Your task to perform on an android device: open chrome and create a bookmark for the current page Image 0: 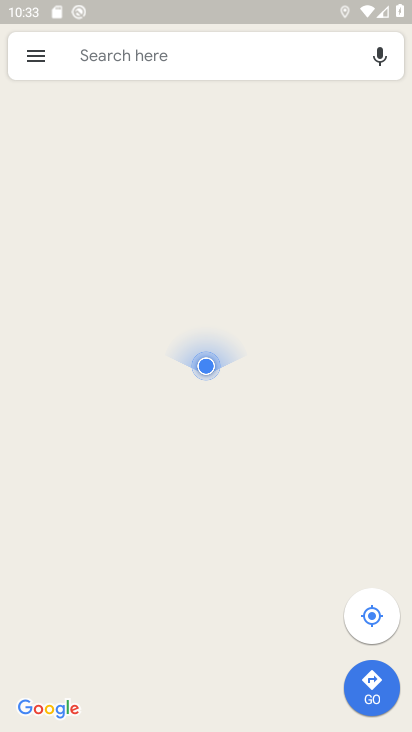
Step 0: press home button
Your task to perform on an android device: open chrome and create a bookmark for the current page Image 1: 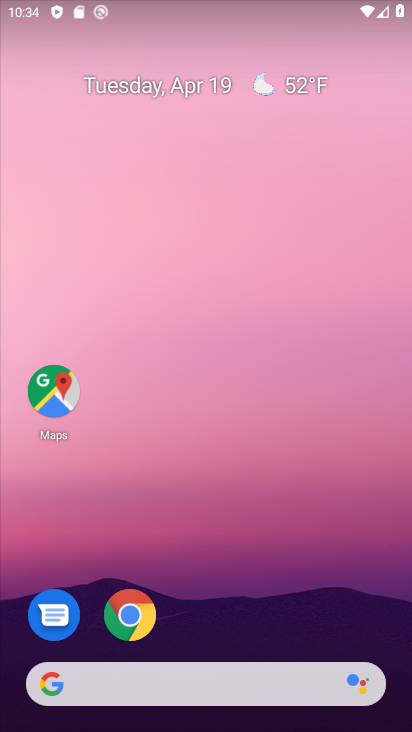
Step 1: click (133, 615)
Your task to perform on an android device: open chrome and create a bookmark for the current page Image 2: 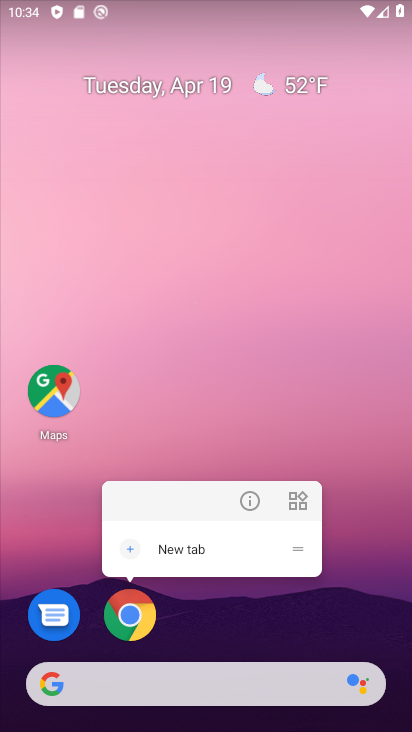
Step 2: click (182, 550)
Your task to perform on an android device: open chrome and create a bookmark for the current page Image 3: 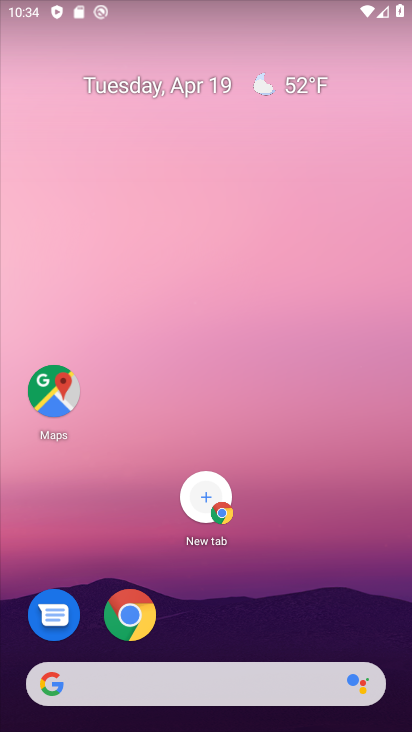
Step 3: click (202, 496)
Your task to perform on an android device: open chrome and create a bookmark for the current page Image 4: 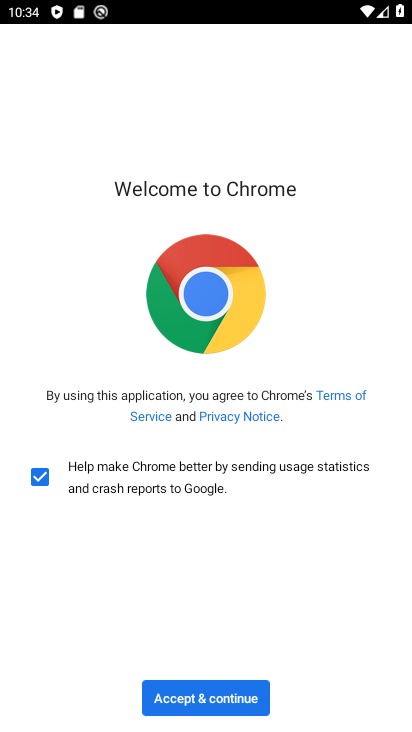
Step 4: click (216, 708)
Your task to perform on an android device: open chrome and create a bookmark for the current page Image 5: 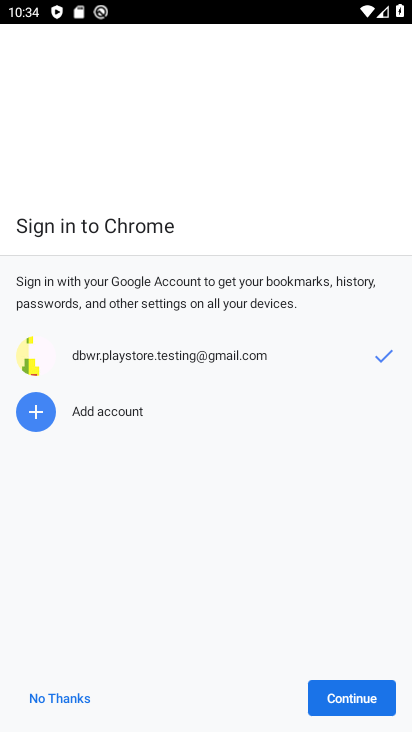
Step 5: click (339, 691)
Your task to perform on an android device: open chrome and create a bookmark for the current page Image 6: 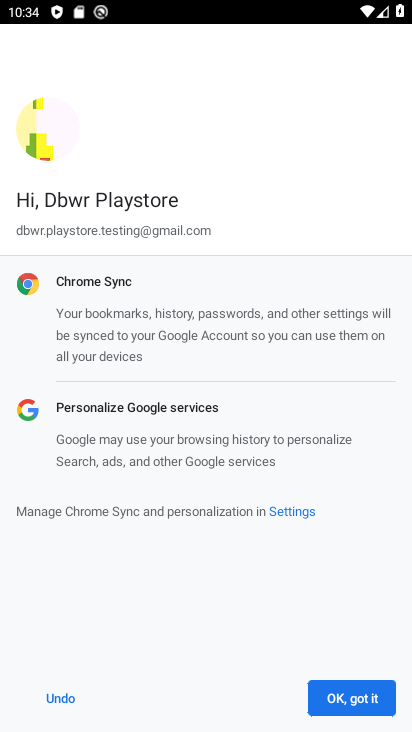
Step 6: click (339, 691)
Your task to perform on an android device: open chrome and create a bookmark for the current page Image 7: 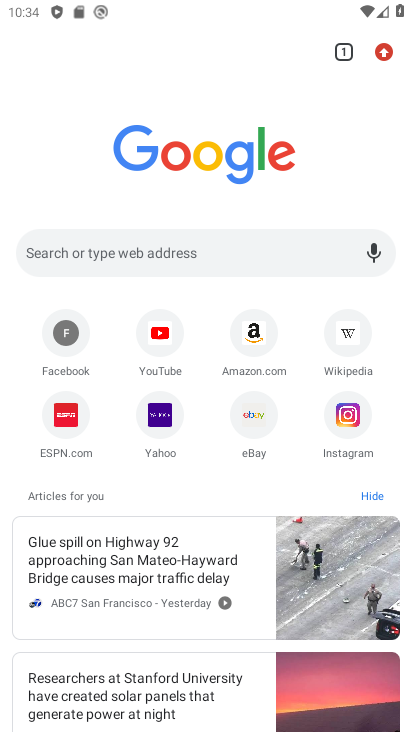
Step 7: click (387, 60)
Your task to perform on an android device: open chrome and create a bookmark for the current page Image 8: 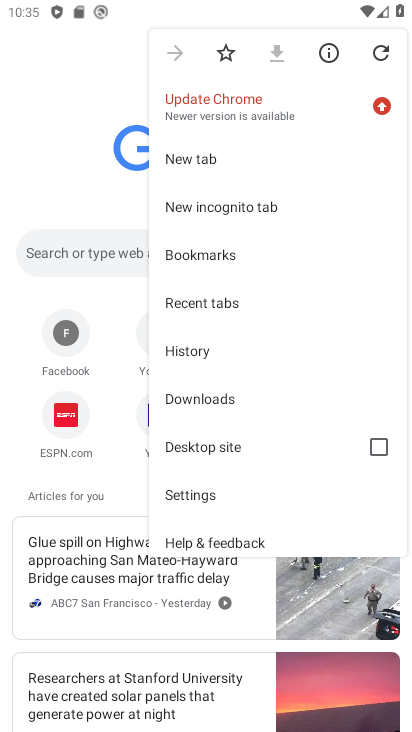
Step 8: click (228, 56)
Your task to perform on an android device: open chrome and create a bookmark for the current page Image 9: 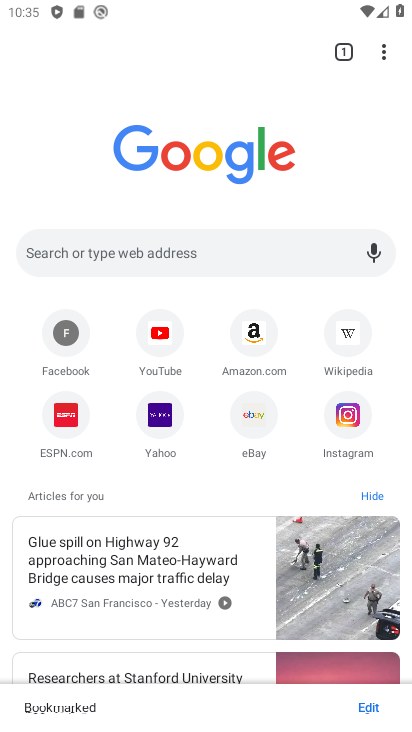
Step 9: task complete